Your task to perform on an android device: Open calendar and show me the third week of next month Image 0: 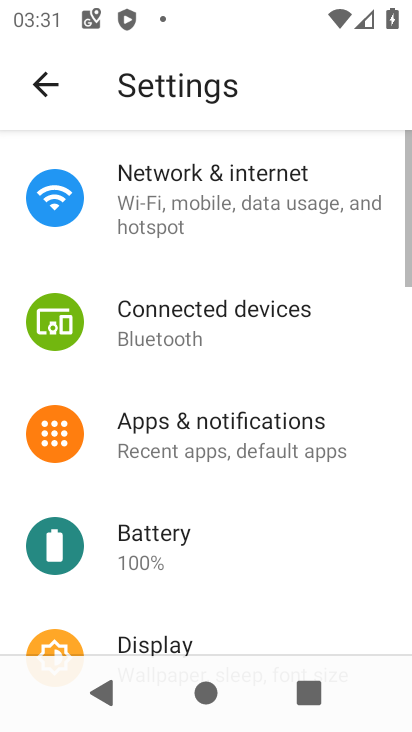
Step 0: press home button
Your task to perform on an android device: Open calendar and show me the third week of next month Image 1: 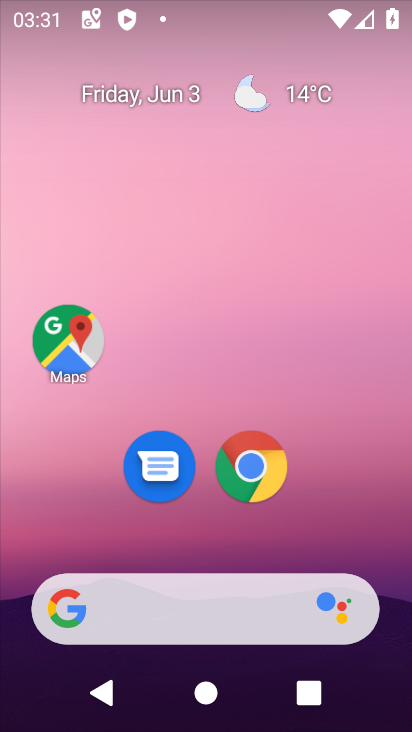
Step 1: drag from (208, 539) to (296, 0)
Your task to perform on an android device: Open calendar and show me the third week of next month Image 2: 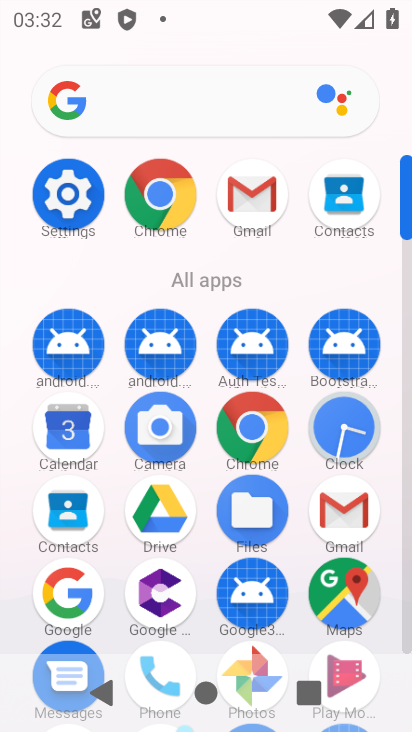
Step 2: click (66, 421)
Your task to perform on an android device: Open calendar and show me the third week of next month Image 3: 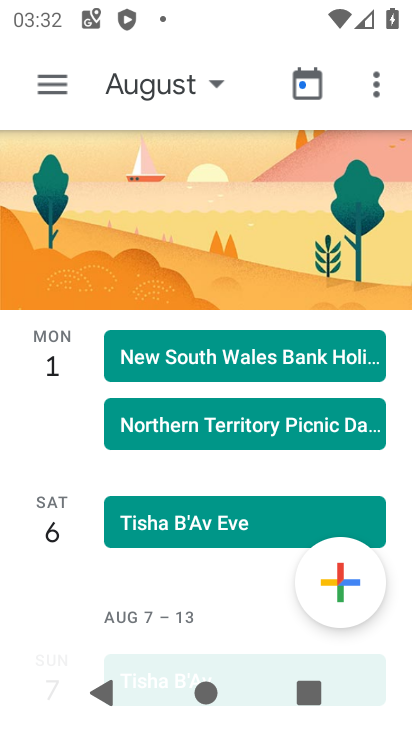
Step 3: click (55, 82)
Your task to perform on an android device: Open calendar and show me the third week of next month Image 4: 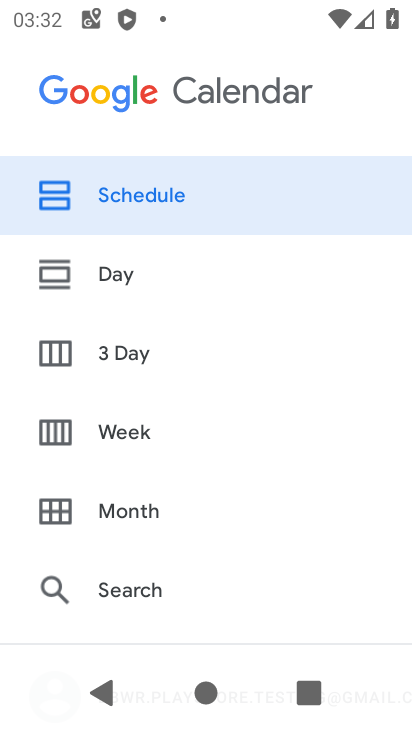
Step 4: click (108, 432)
Your task to perform on an android device: Open calendar and show me the third week of next month Image 5: 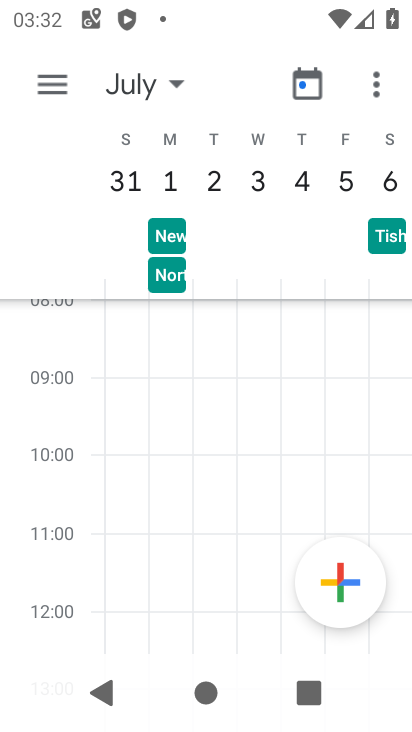
Step 5: drag from (123, 174) to (411, 179)
Your task to perform on an android device: Open calendar and show me the third week of next month Image 6: 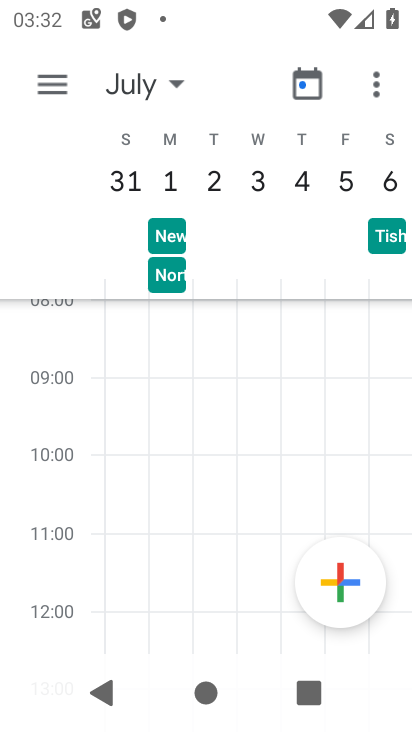
Step 6: drag from (136, 178) to (387, 199)
Your task to perform on an android device: Open calendar and show me the third week of next month Image 7: 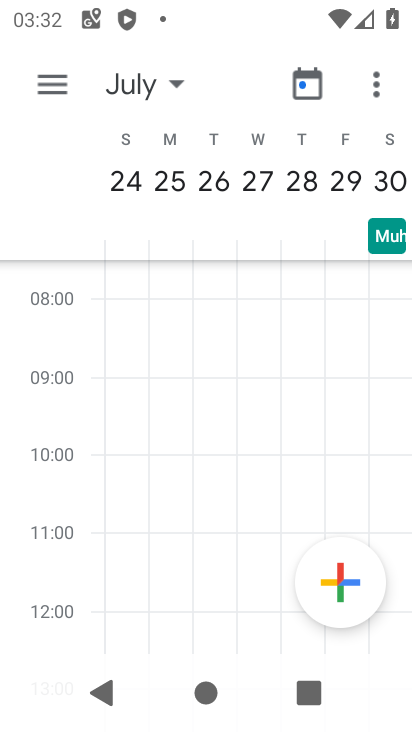
Step 7: drag from (136, 180) to (410, 193)
Your task to perform on an android device: Open calendar and show me the third week of next month Image 8: 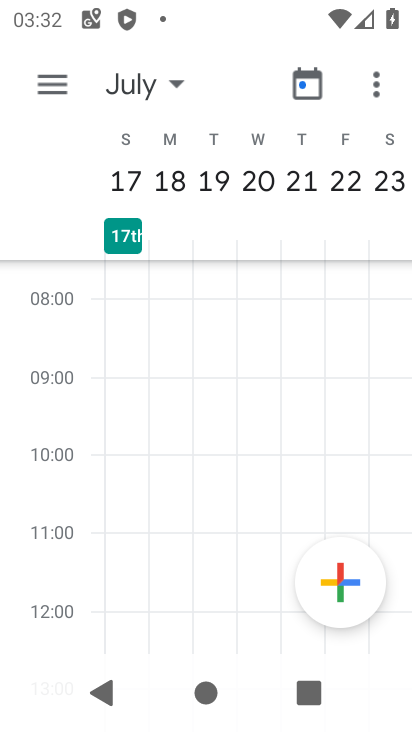
Step 8: click (133, 180)
Your task to perform on an android device: Open calendar and show me the third week of next month Image 9: 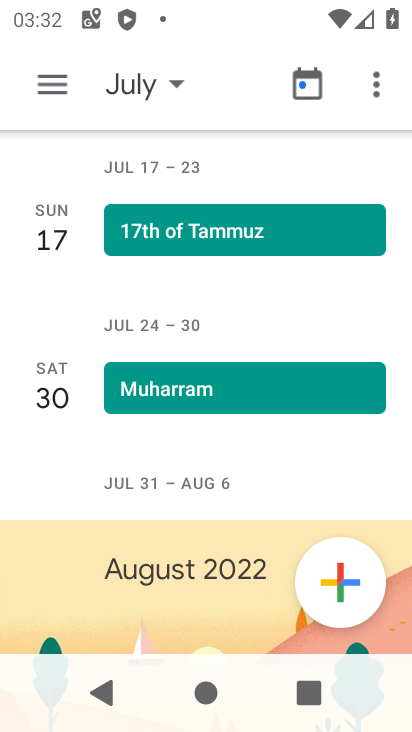
Step 9: task complete